Your task to perform on an android device: toggle priority inbox in the gmail app Image 0: 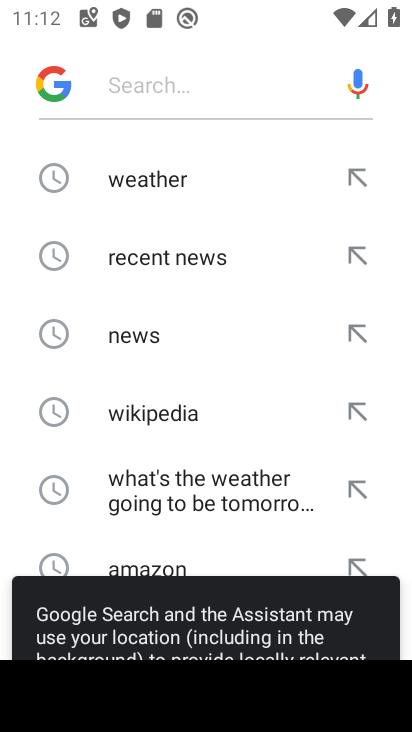
Step 0: press back button
Your task to perform on an android device: toggle priority inbox in the gmail app Image 1: 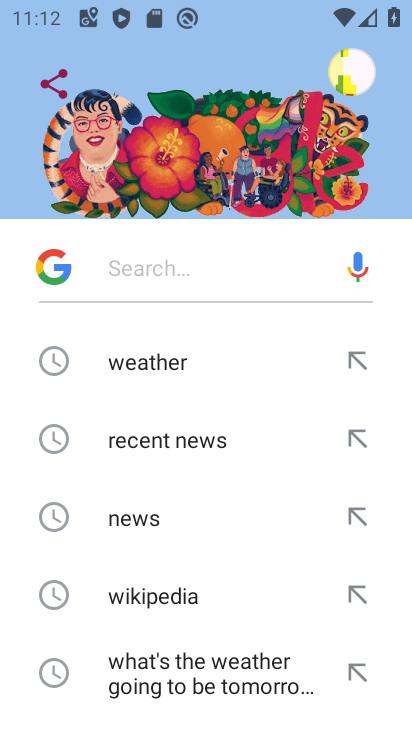
Step 1: press back button
Your task to perform on an android device: toggle priority inbox in the gmail app Image 2: 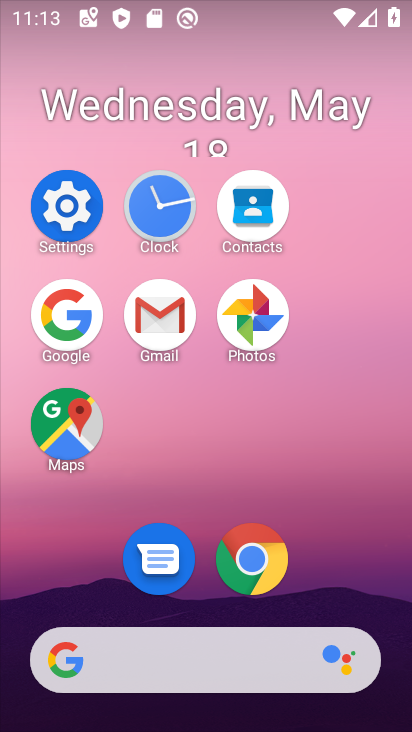
Step 2: click (156, 336)
Your task to perform on an android device: toggle priority inbox in the gmail app Image 3: 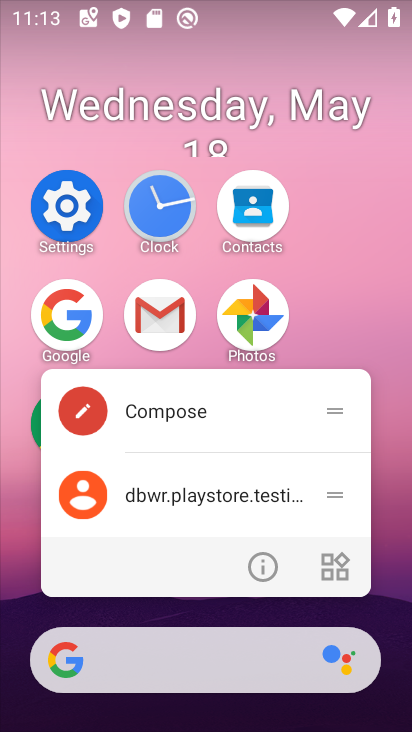
Step 3: click (156, 336)
Your task to perform on an android device: toggle priority inbox in the gmail app Image 4: 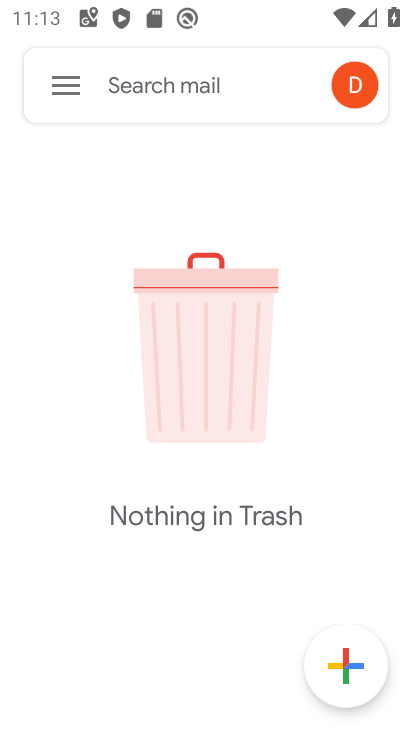
Step 4: click (46, 90)
Your task to perform on an android device: toggle priority inbox in the gmail app Image 5: 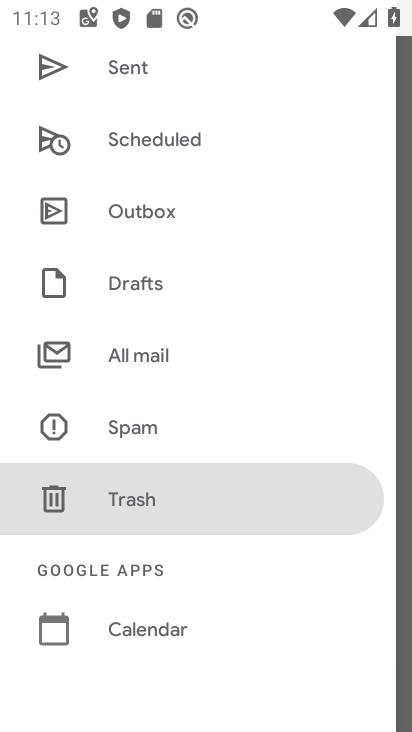
Step 5: drag from (223, 541) to (243, 225)
Your task to perform on an android device: toggle priority inbox in the gmail app Image 6: 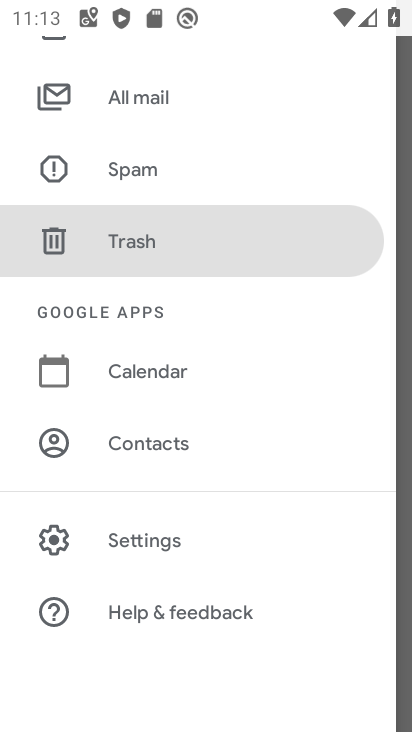
Step 6: click (162, 533)
Your task to perform on an android device: toggle priority inbox in the gmail app Image 7: 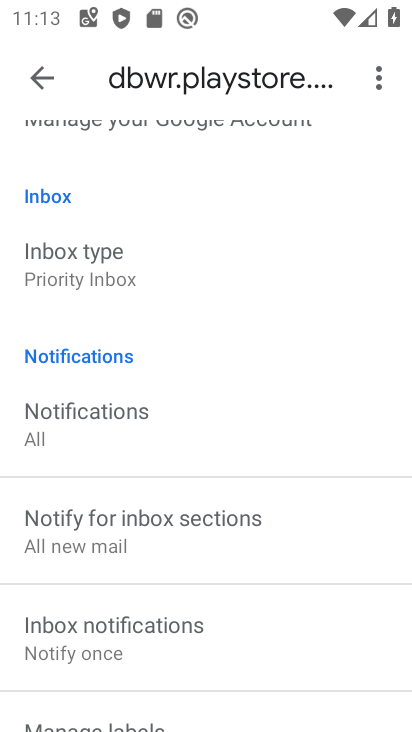
Step 7: click (184, 278)
Your task to perform on an android device: toggle priority inbox in the gmail app Image 8: 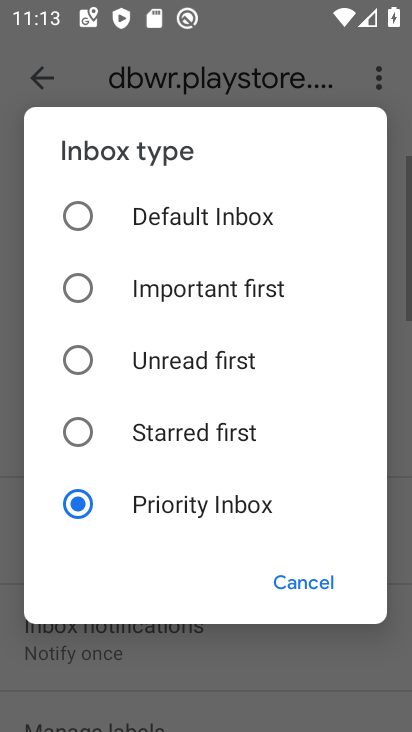
Step 8: click (201, 193)
Your task to perform on an android device: toggle priority inbox in the gmail app Image 9: 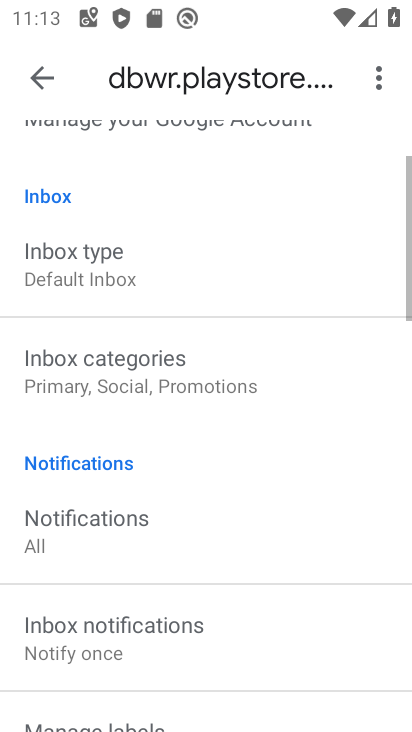
Step 9: task complete